Your task to perform on an android device: change keyboard looks Image 0: 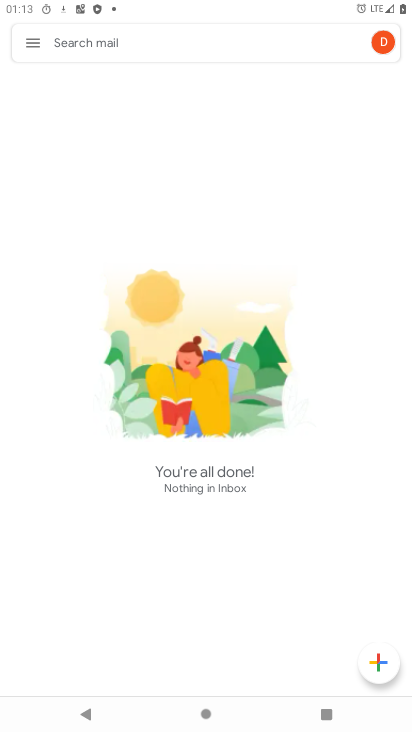
Step 0: press home button
Your task to perform on an android device: change keyboard looks Image 1: 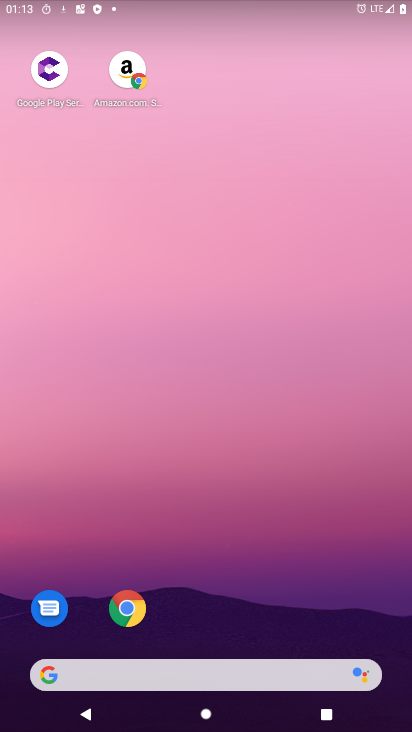
Step 1: drag from (271, 689) to (207, 201)
Your task to perform on an android device: change keyboard looks Image 2: 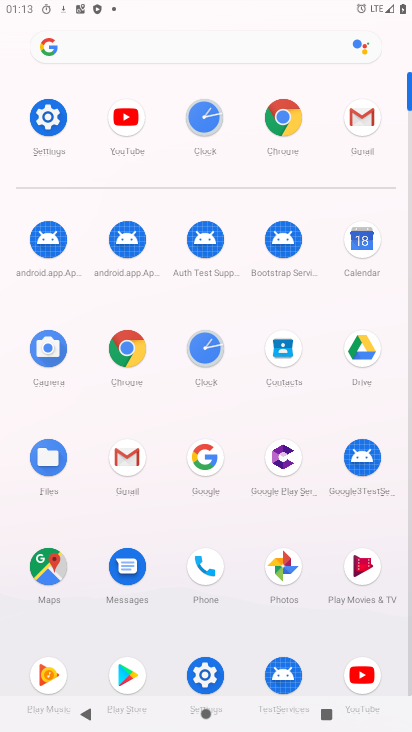
Step 2: click (191, 680)
Your task to perform on an android device: change keyboard looks Image 3: 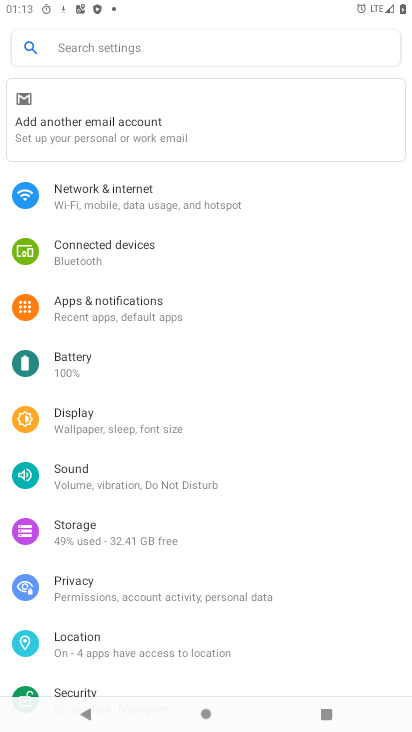
Step 3: click (142, 42)
Your task to perform on an android device: change keyboard looks Image 4: 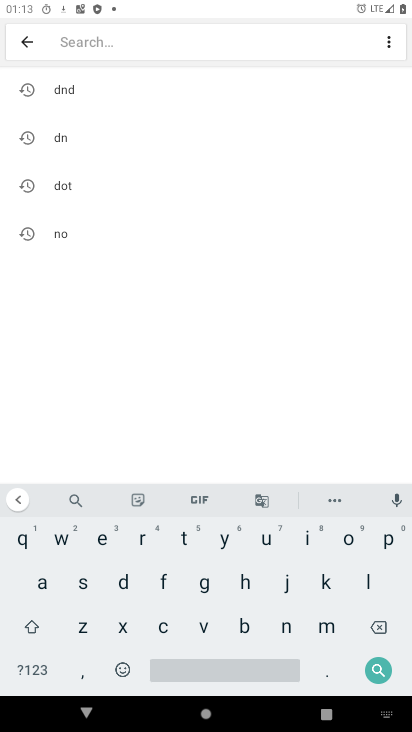
Step 4: click (325, 577)
Your task to perform on an android device: change keyboard looks Image 5: 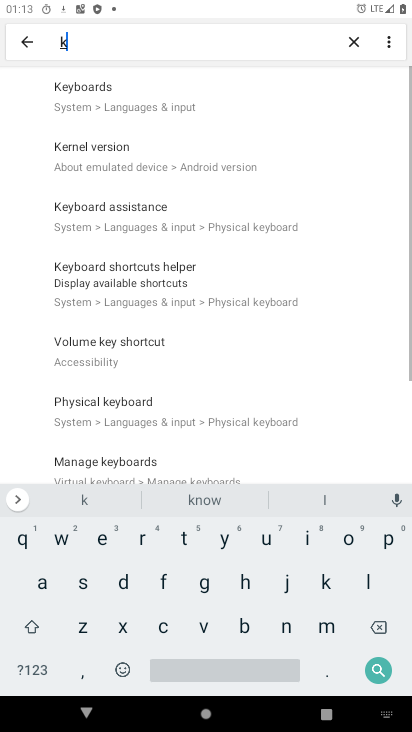
Step 5: click (105, 533)
Your task to perform on an android device: change keyboard looks Image 6: 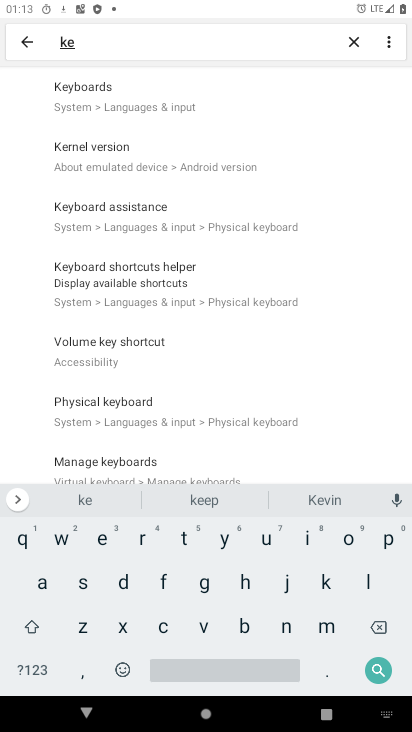
Step 6: click (104, 96)
Your task to perform on an android device: change keyboard looks Image 7: 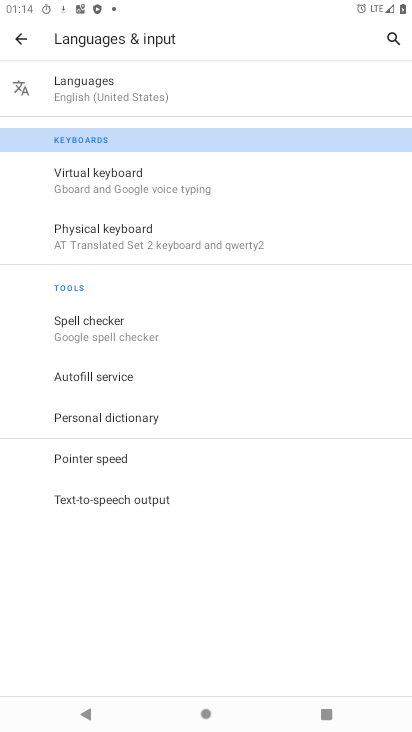
Step 7: click (70, 181)
Your task to perform on an android device: change keyboard looks Image 8: 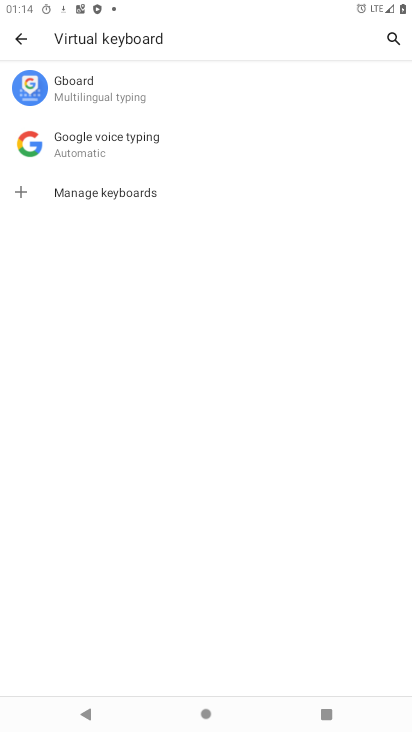
Step 8: click (107, 98)
Your task to perform on an android device: change keyboard looks Image 9: 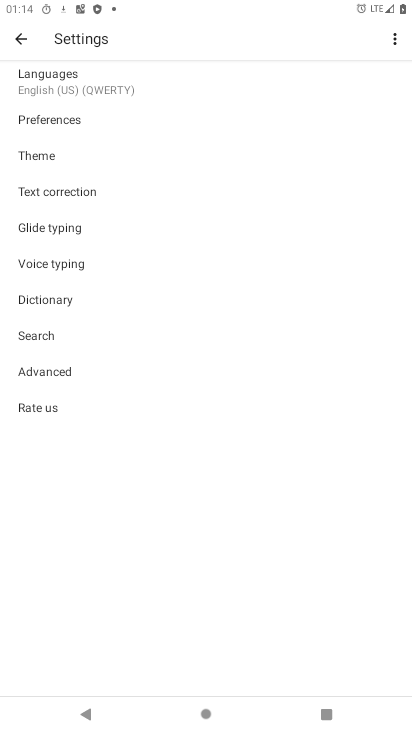
Step 9: click (58, 160)
Your task to perform on an android device: change keyboard looks Image 10: 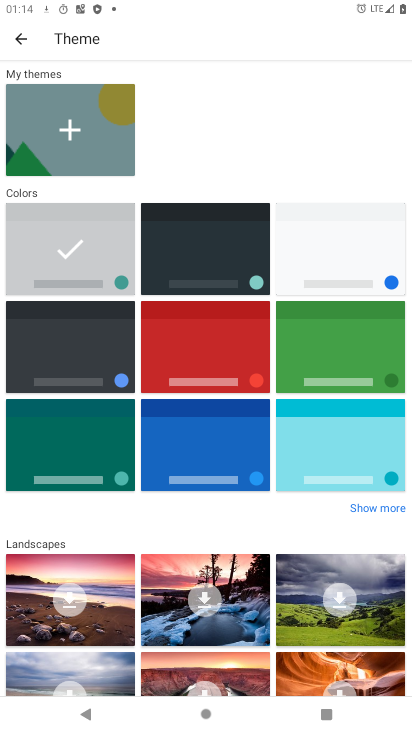
Step 10: click (93, 456)
Your task to perform on an android device: change keyboard looks Image 11: 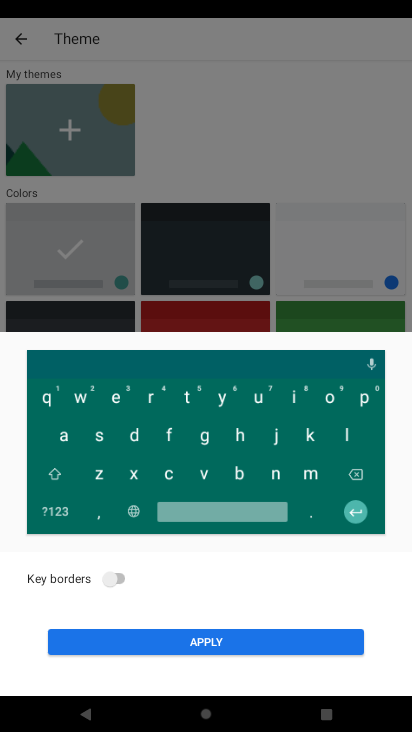
Step 11: click (113, 580)
Your task to perform on an android device: change keyboard looks Image 12: 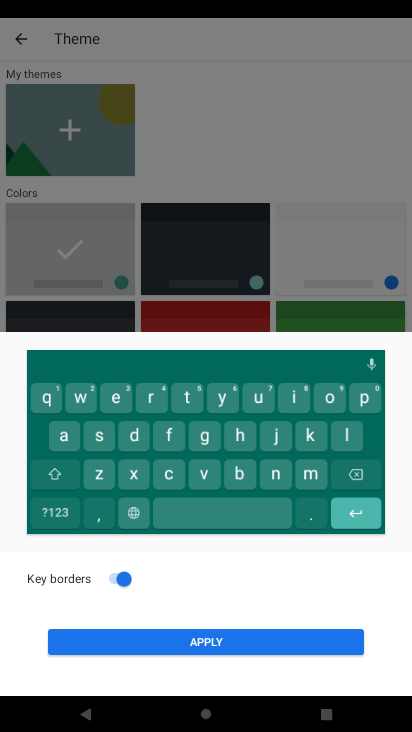
Step 12: click (179, 649)
Your task to perform on an android device: change keyboard looks Image 13: 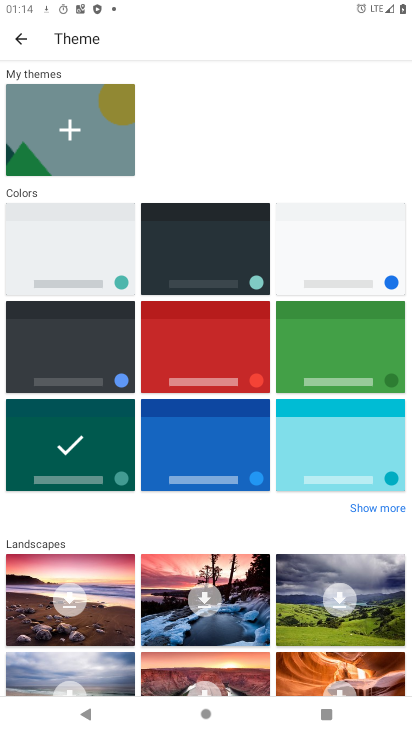
Step 13: task complete